Your task to perform on an android device: Open ESPN.com Image 0: 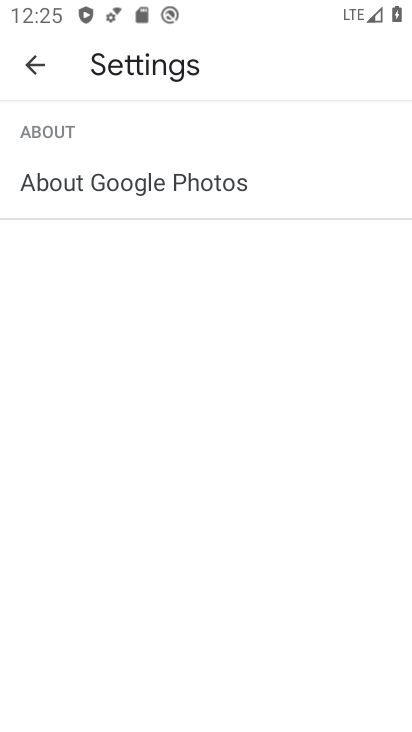
Step 0: press home button
Your task to perform on an android device: Open ESPN.com Image 1: 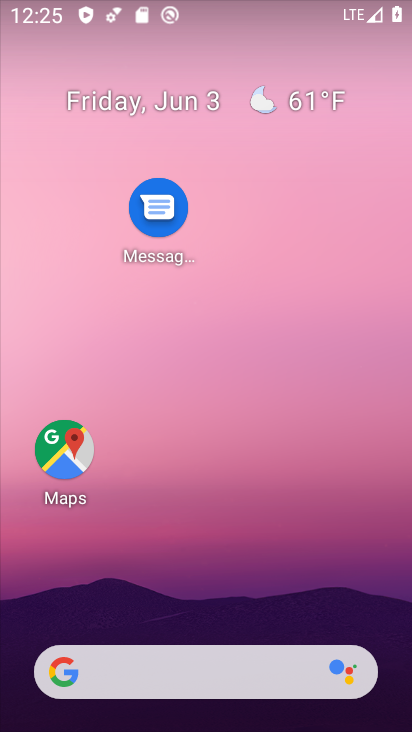
Step 1: drag from (200, 617) to (222, 7)
Your task to perform on an android device: Open ESPN.com Image 2: 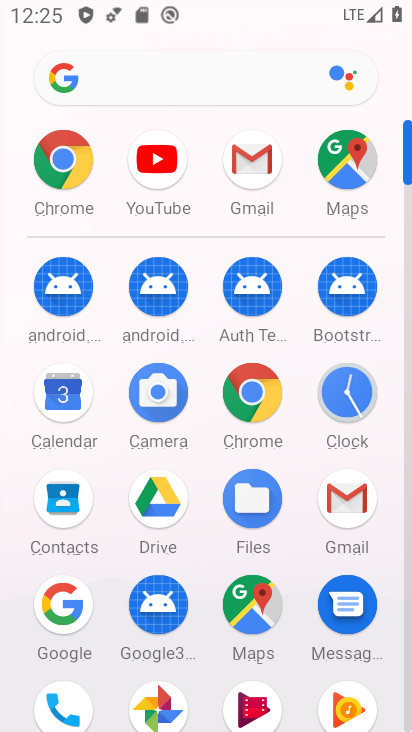
Step 2: click (262, 381)
Your task to perform on an android device: Open ESPN.com Image 3: 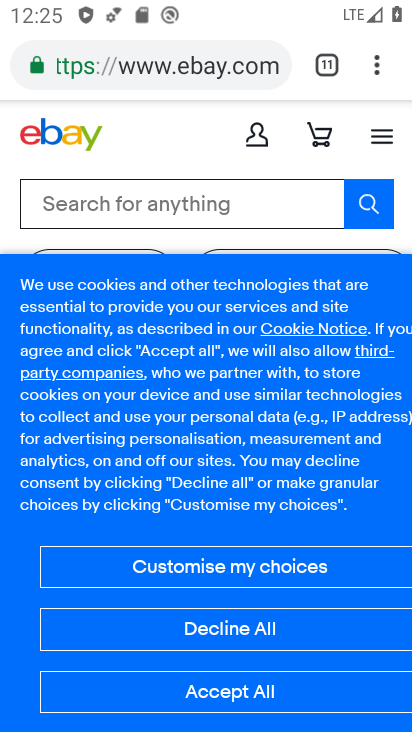
Step 3: click (330, 83)
Your task to perform on an android device: Open ESPN.com Image 4: 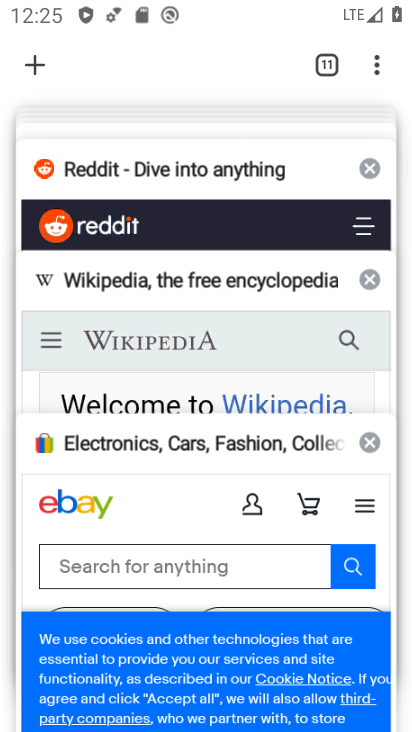
Step 4: click (27, 42)
Your task to perform on an android device: Open ESPN.com Image 5: 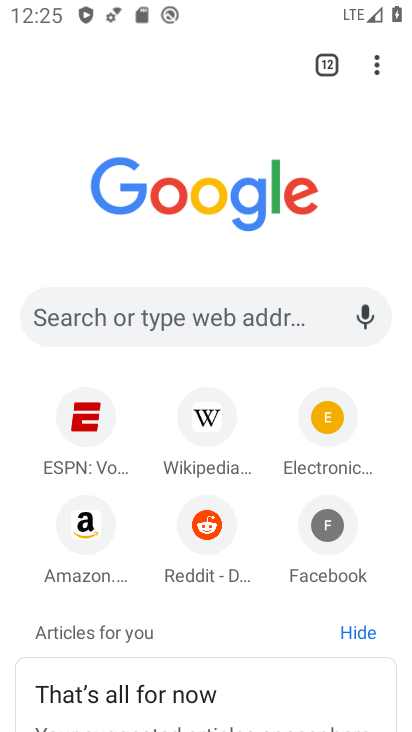
Step 5: click (85, 437)
Your task to perform on an android device: Open ESPN.com Image 6: 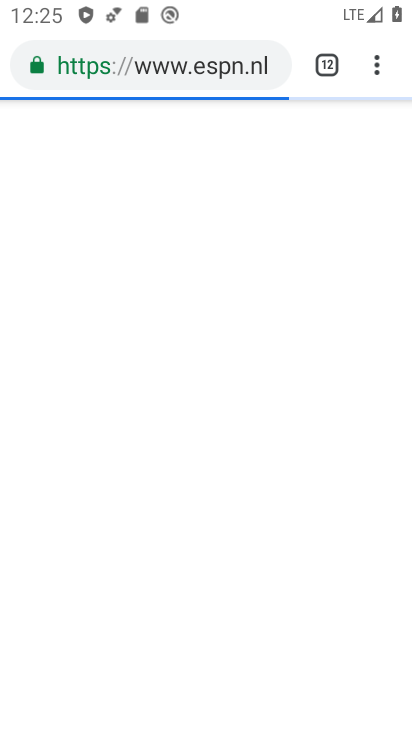
Step 6: task complete